Your task to perform on an android device: Play the latest video from the Huffington Post Image 0: 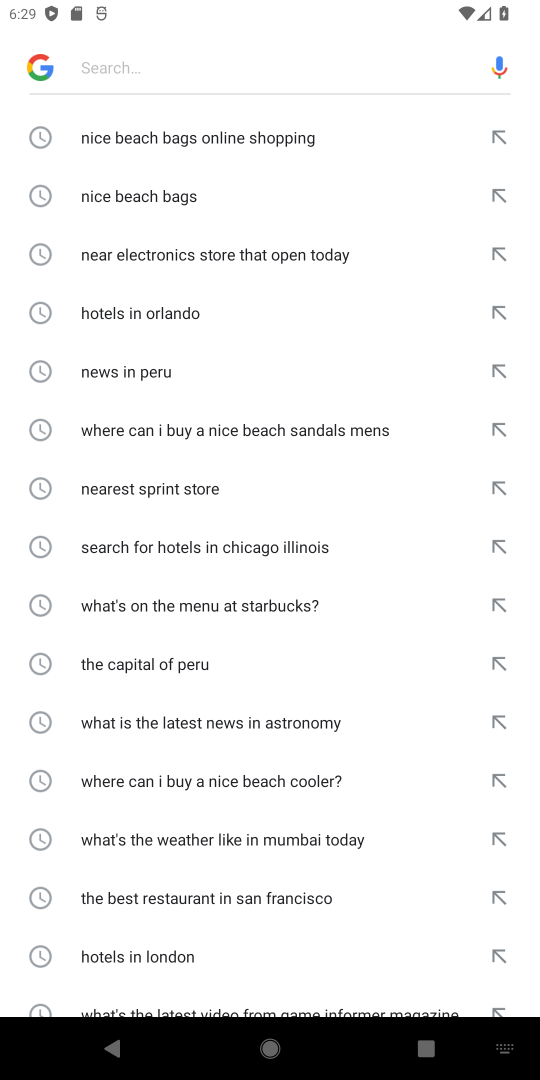
Step 0: press home button
Your task to perform on an android device: Play the latest video from the Huffington Post Image 1: 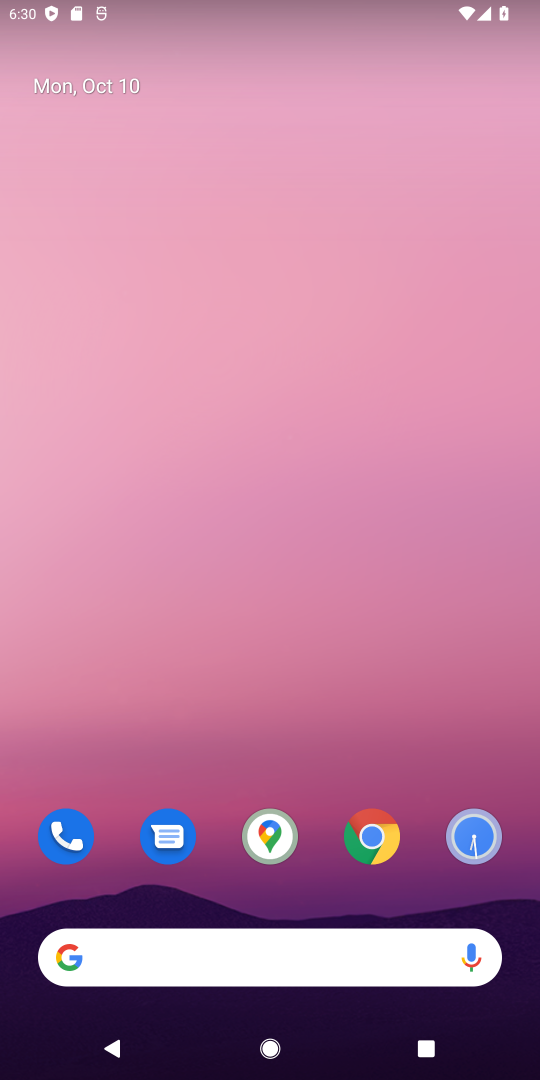
Step 1: drag from (310, 878) to (296, 170)
Your task to perform on an android device: Play the latest video from the Huffington Post Image 2: 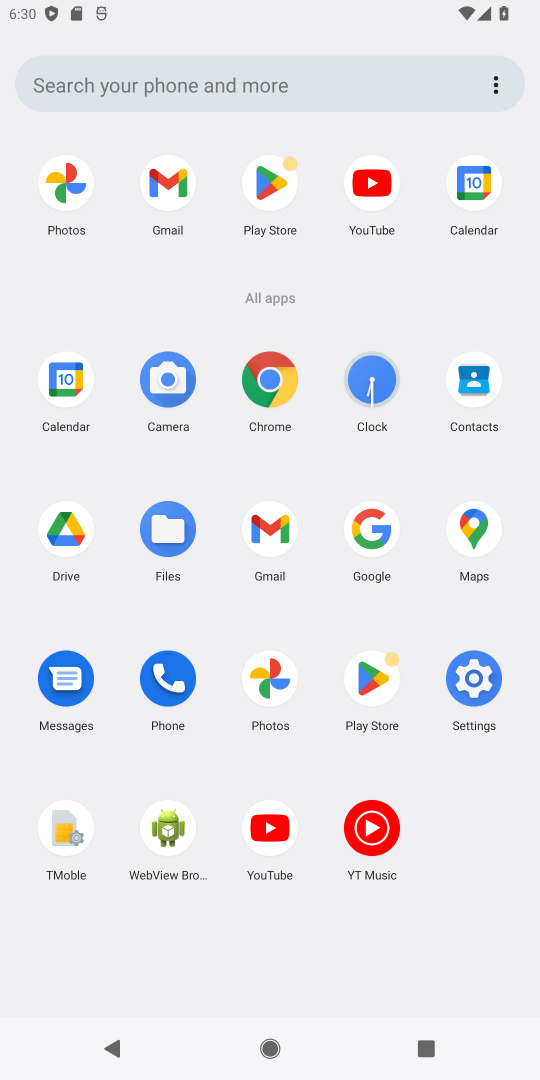
Step 2: click (269, 828)
Your task to perform on an android device: Play the latest video from the Huffington Post Image 3: 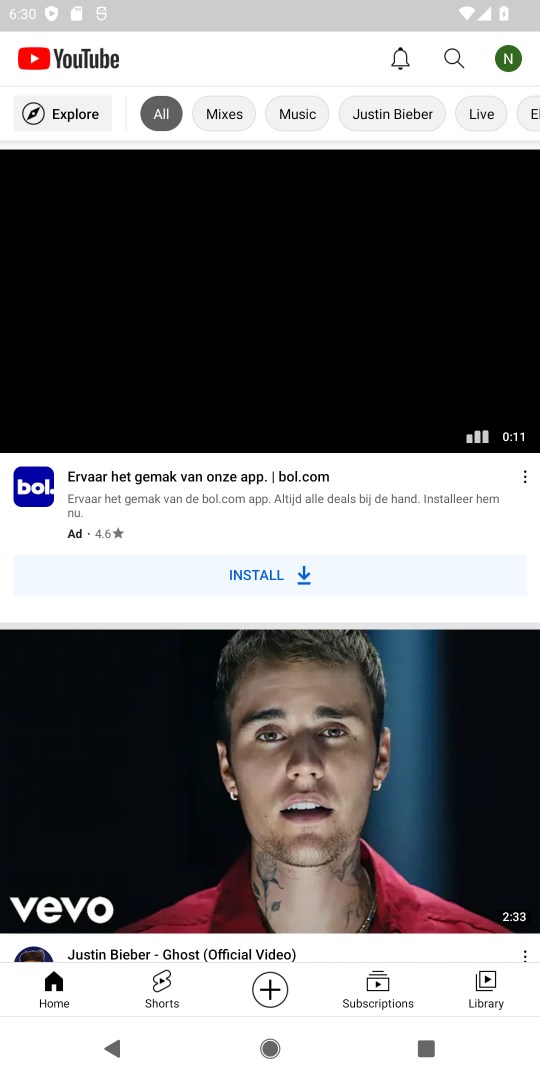
Step 3: click (453, 56)
Your task to perform on an android device: Play the latest video from the Huffington Post Image 4: 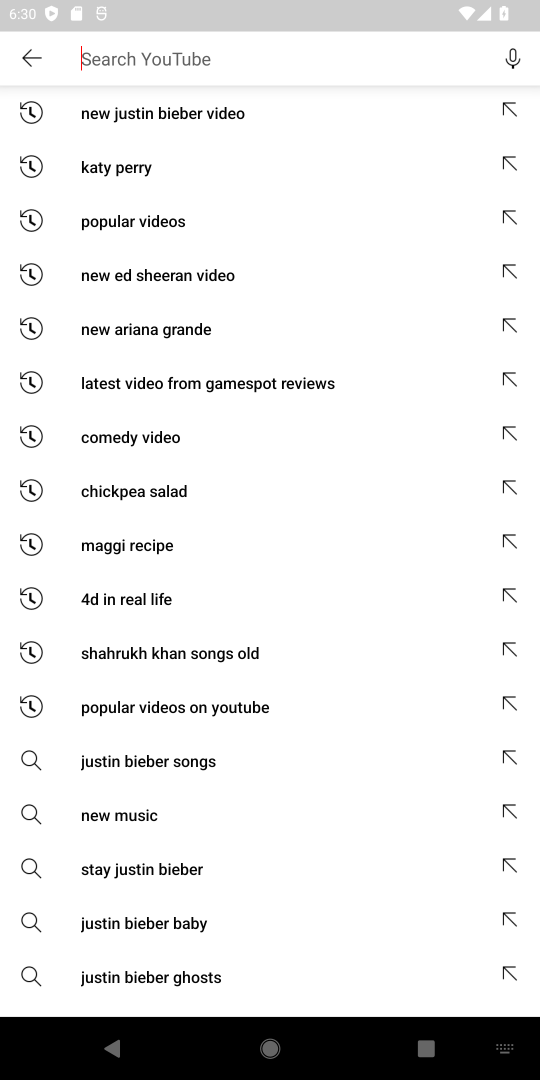
Step 4: type "Huffington Post"
Your task to perform on an android device: Play the latest video from the Huffington Post Image 5: 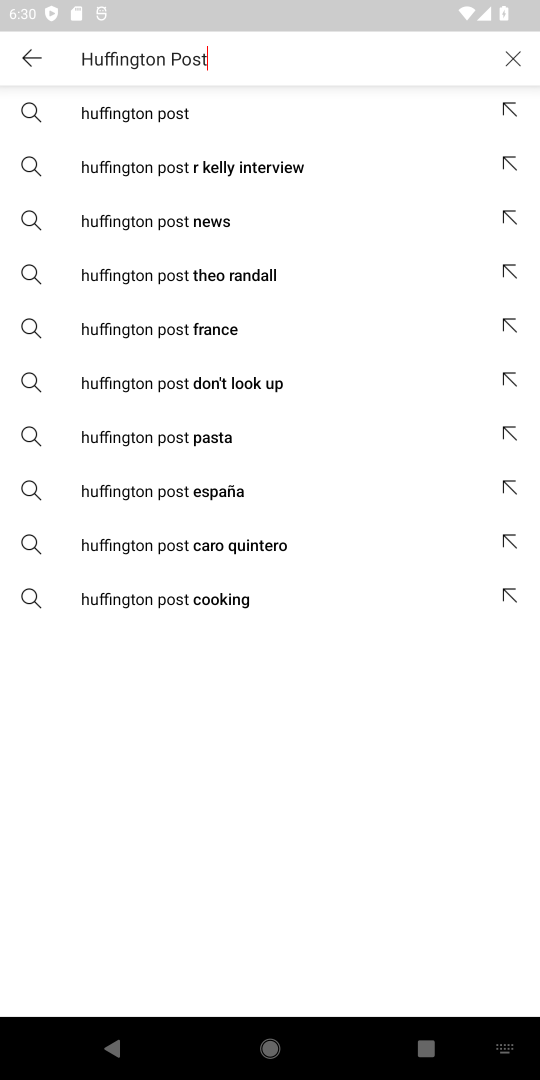
Step 5: click (114, 99)
Your task to perform on an android device: Play the latest video from the Huffington Post Image 6: 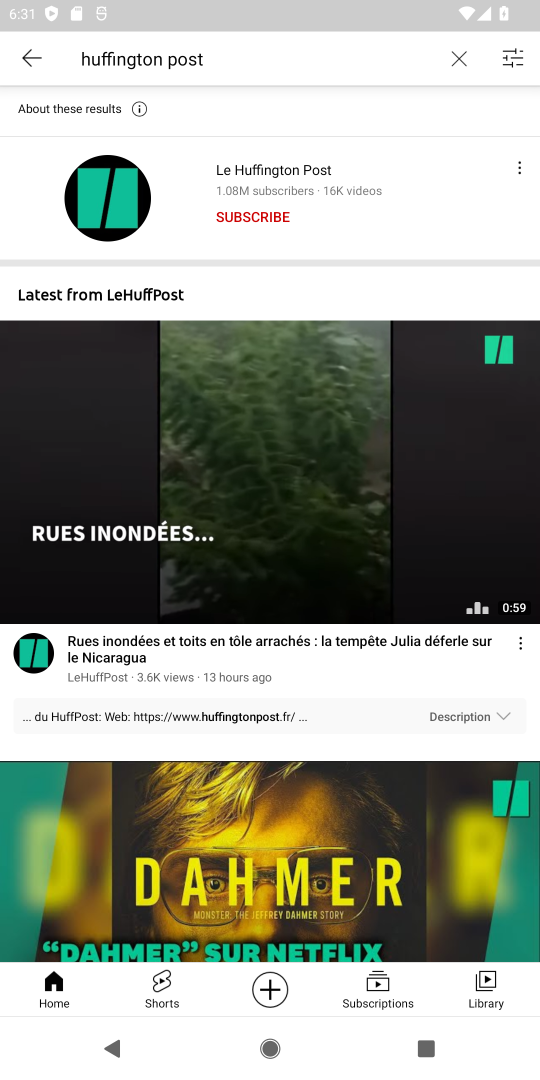
Step 6: click (264, 173)
Your task to perform on an android device: Play the latest video from the Huffington Post Image 7: 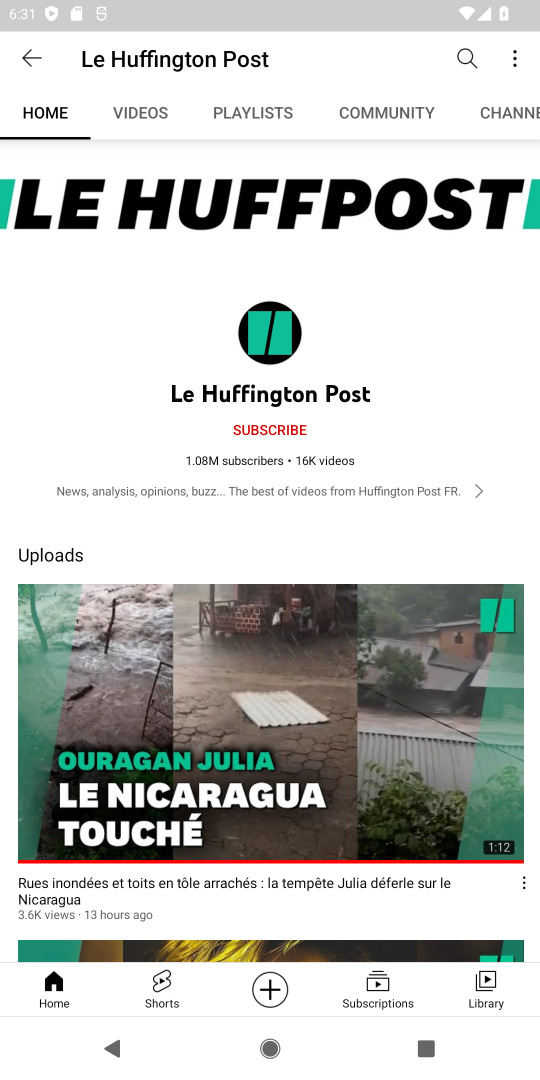
Step 7: click (136, 105)
Your task to perform on an android device: Play the latest video from the Huffington Post Image 8: 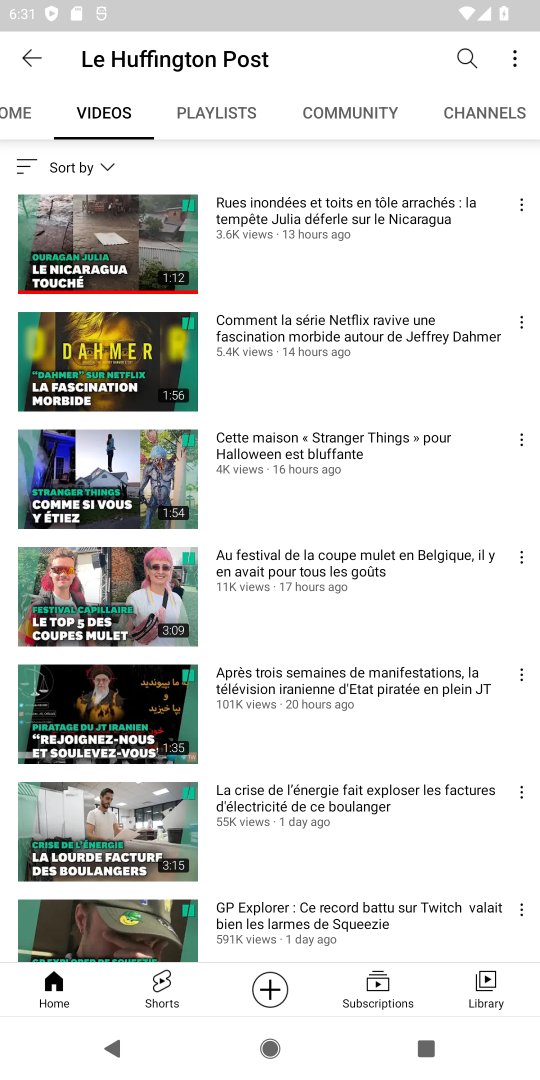
Step 8: drag from (229, 742) to (238, 315)
Your task to perform on an android device: Play the latest video from the Huffington Post Image 9: 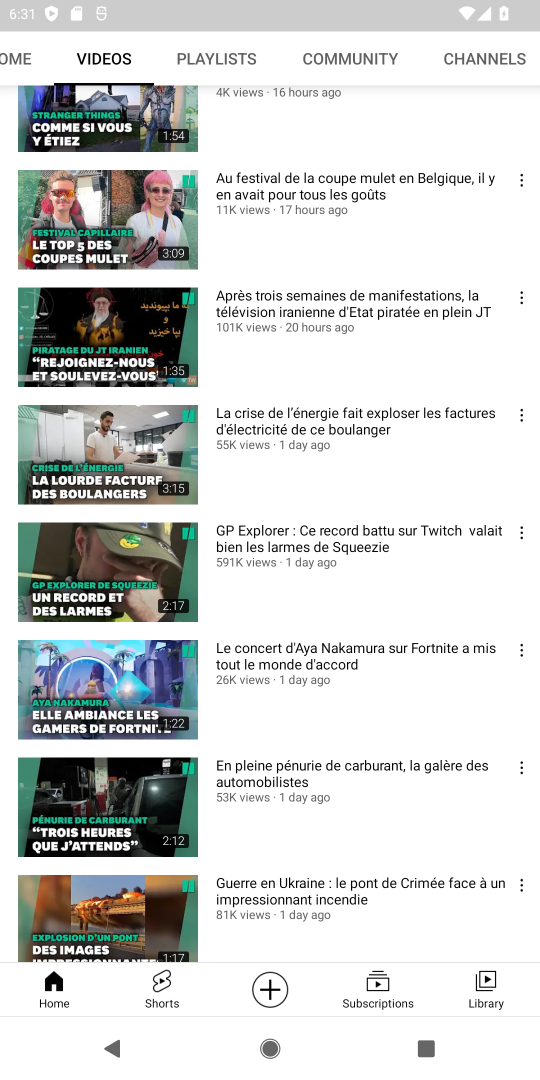
Step 9: drag from (293, 837) to (313, 242)
Your task to perform on an android device: Play the latest video from the Huffington Post Image 10: 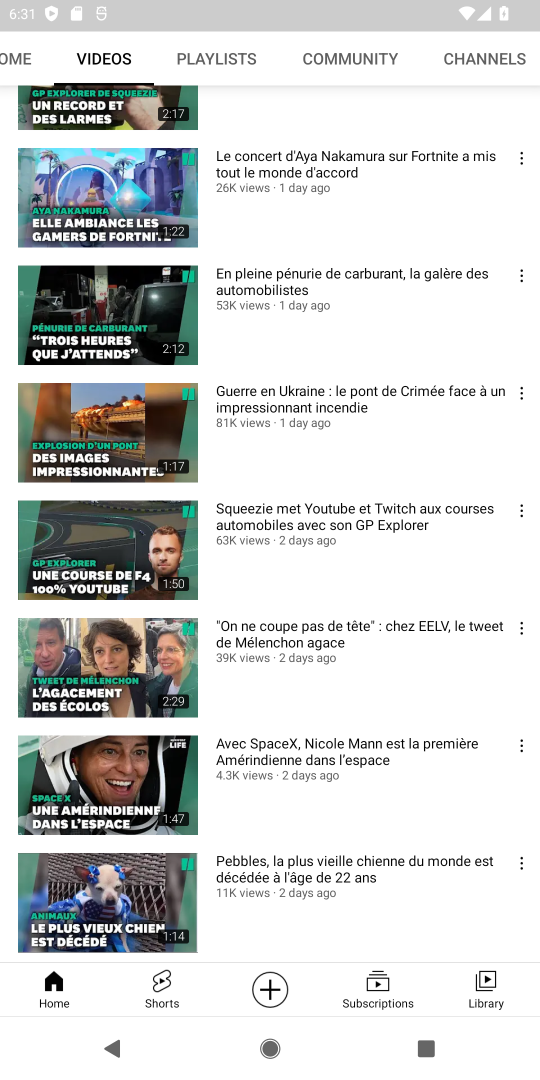
Step 10: drag from (288, 771) to (316, 286)
Your task to perform on an android device: Play the latest video from the Huffington Post Image 11: 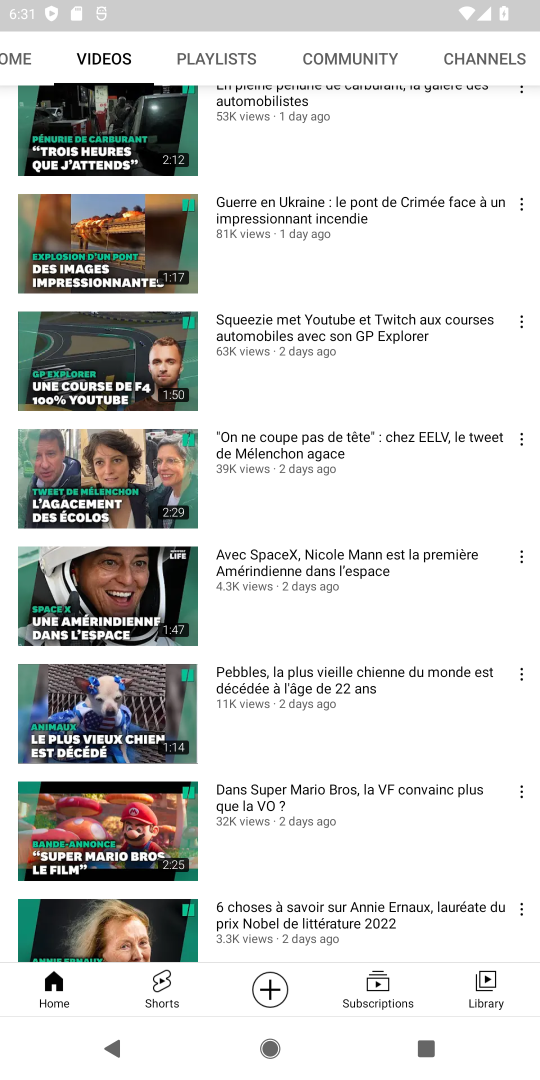
Step 11: drag from (376, 202) to (348, 572)
Your task to perform on an android device: Play the latest video from the Huffington Post Image 12: 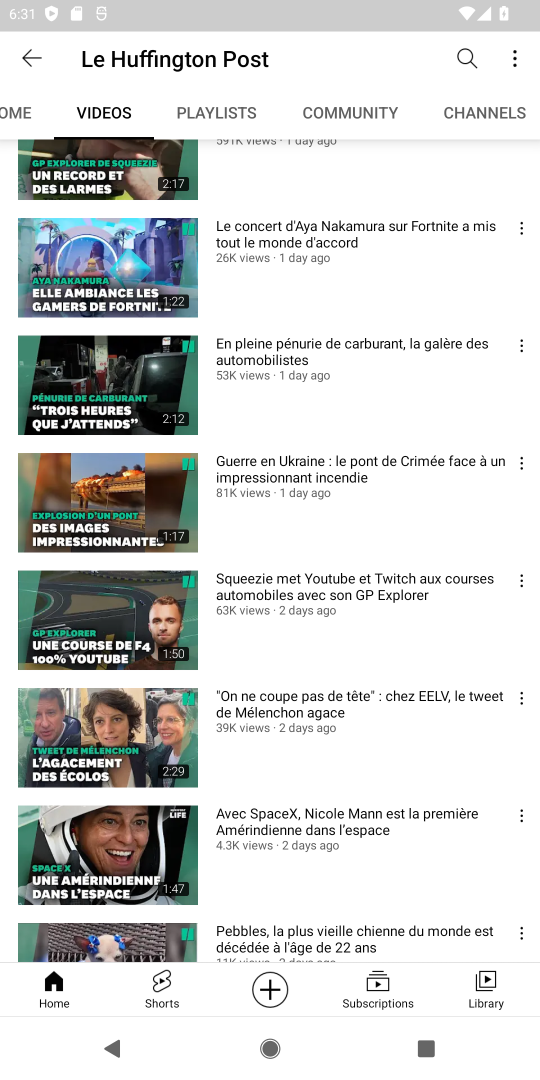
Step 12: drag from (297, 233) to (230, 792)
Your task to perform on an android device: Play the latest video from the Huffington Post Image 13: 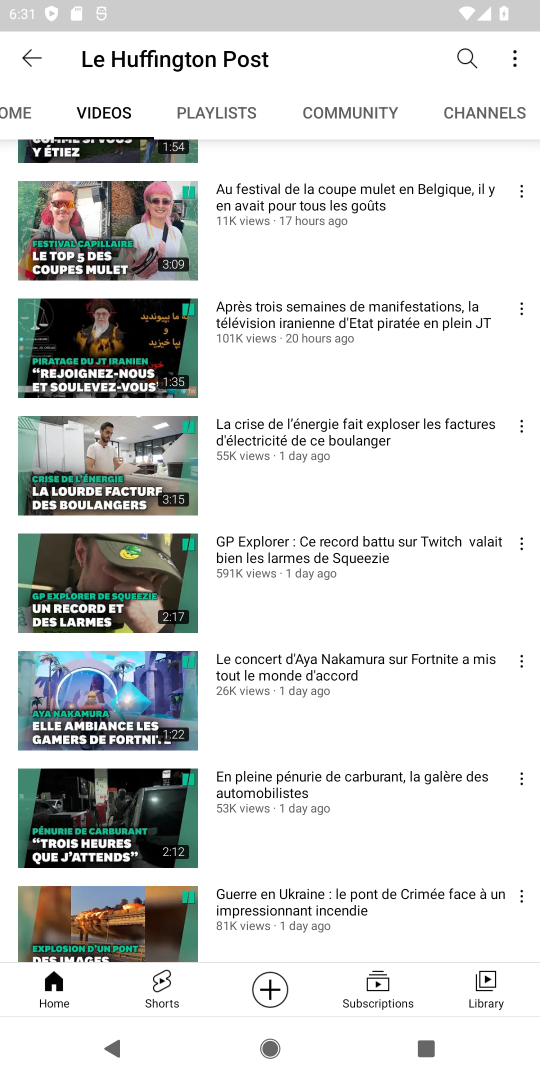
Step 13: drag from (245, 214) to (212, 692)
Your task to perform on an android device: Play the latest video from the Huffington Post Image 14: 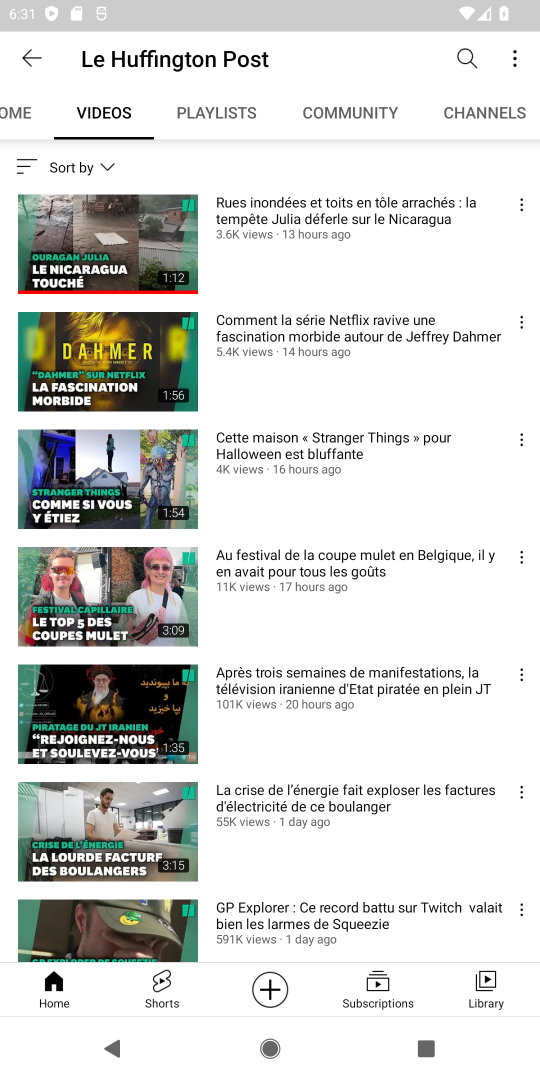
Step 14: drag from (285, 290) to (252, 604)
Your task to perform on an android device: Play the latest video from the Huffington Post Image 15: 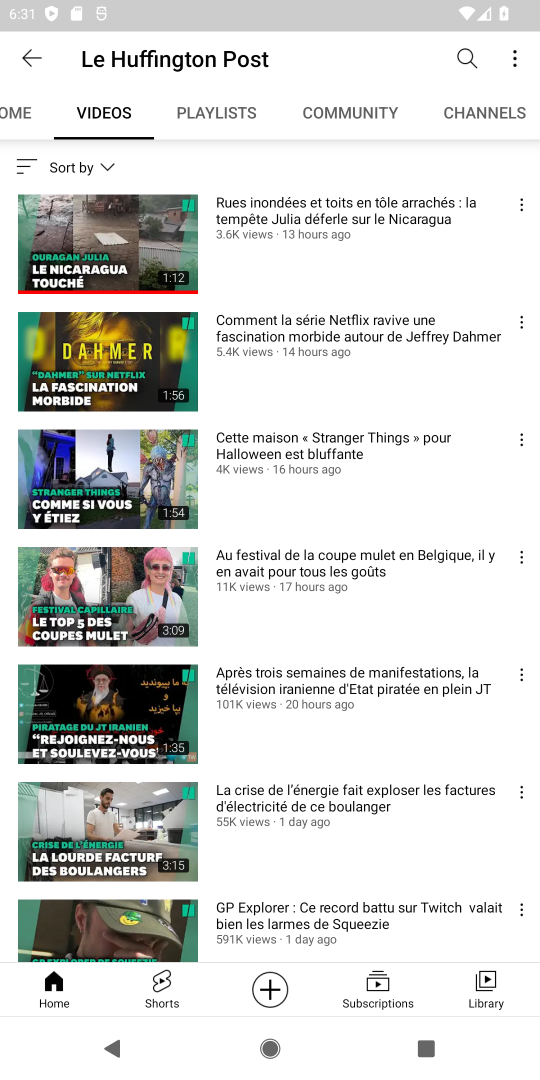
Step 15: click (110, 222)
Your task to perform on an android device: Play the latest video from the Huffington Post Image 16: 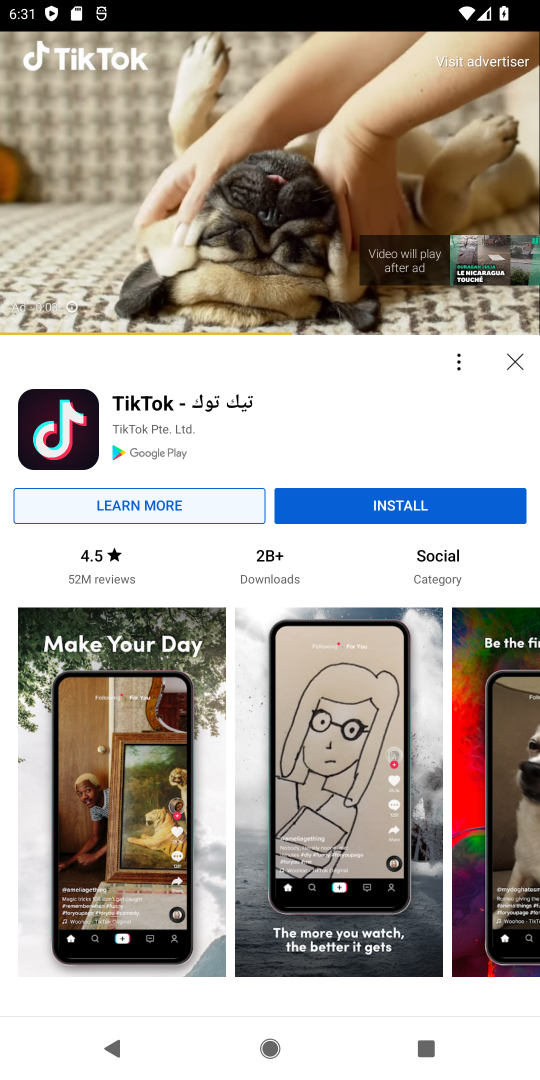
Step 16: click (512, 357)
Your task to perform on an android device: Play the latest video from the Huffington Post Image 17: 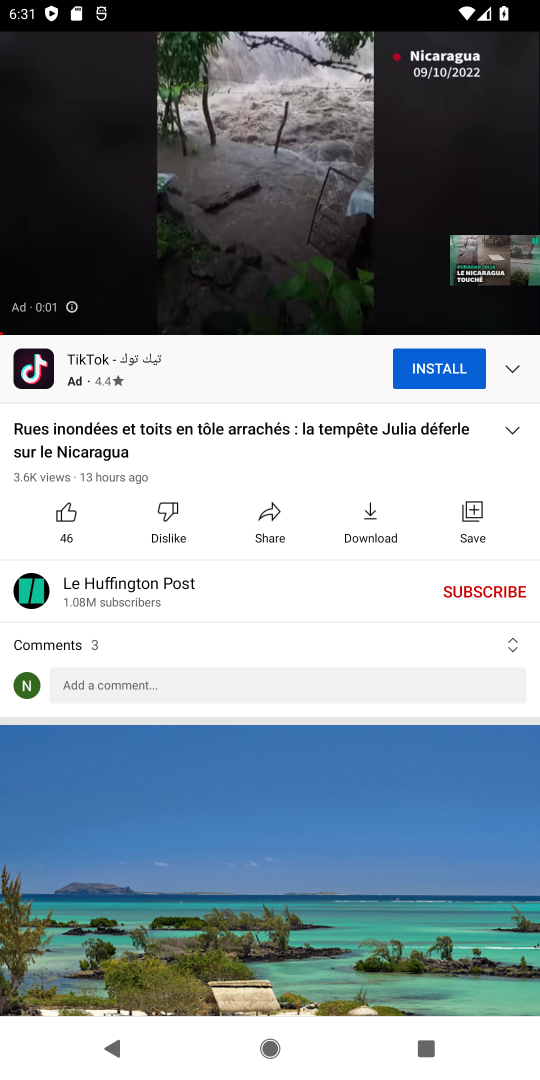
Step 17: click (267, 170)
Your task to perform on an android device: Play the latest video from the Huffington Post Image 18: 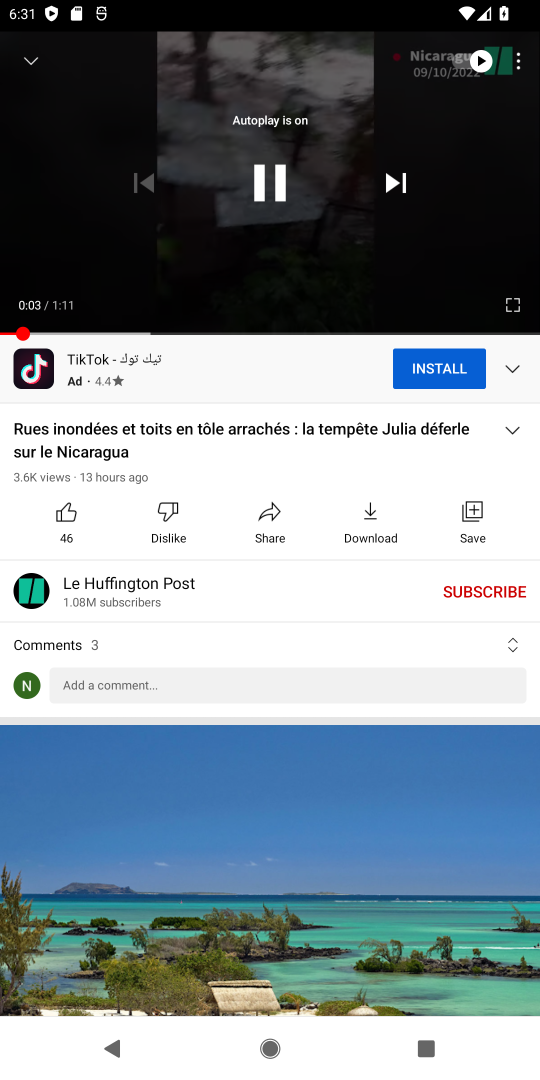
Step 18: click (267, 170)
Your task to perform on an android device: Play the latest video from the Huffington Post Image 19: 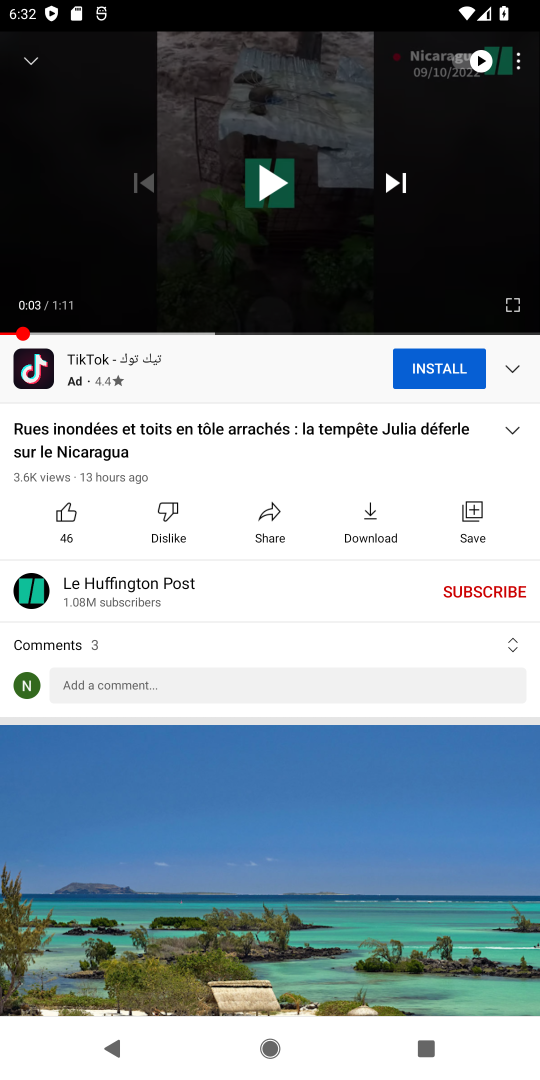
Step 19: task complete